Your task to perform on an android device: toggle priority inbox in the gmail app Image 0: 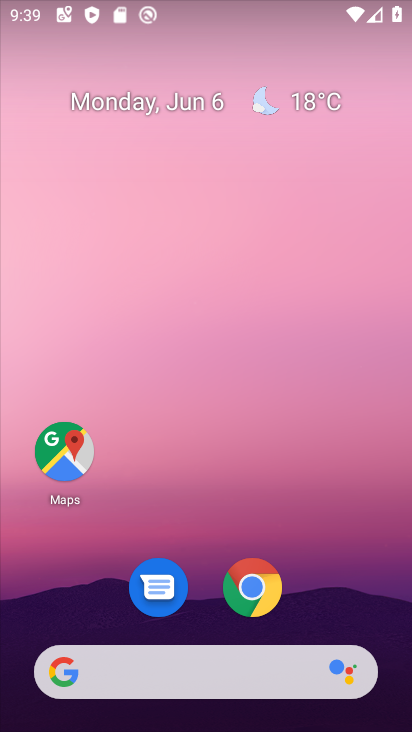
Step 0: drag from (352, 570) to (294, 146)
Your task to perform on an android device: toggle priority inbox in the gmail app Image 1: 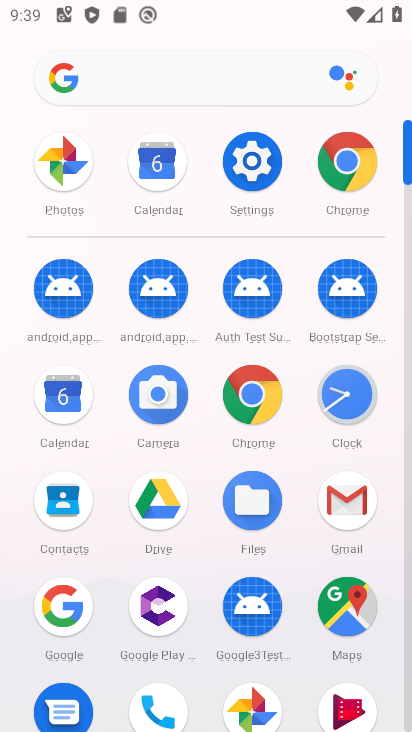
Step 1: click (336, 513)
Your task to perform on an android device: toggle priority inbox in the gmail app Image 2: 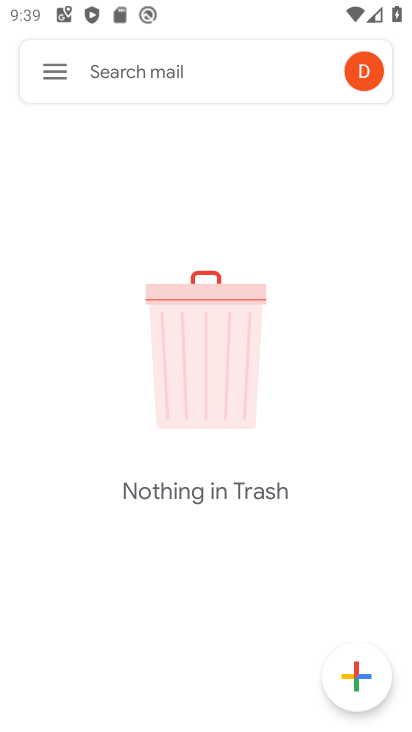
Step 2: click (41, 66)
Your task to perform on an android device: toggle priority inbox in the gmail app Image 3: 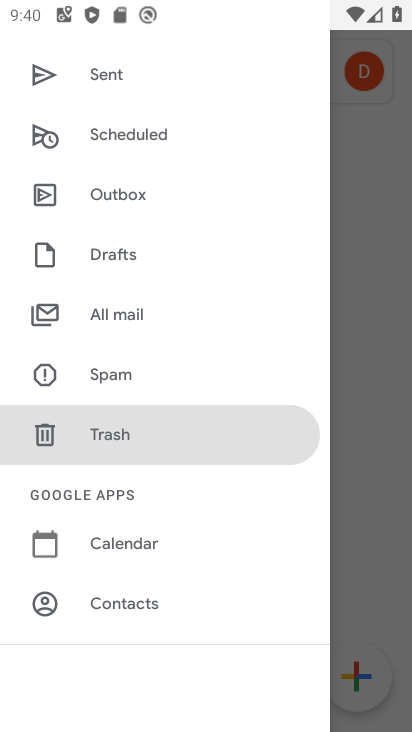
Step 3: drag from (189, 622) to (226, 143)
Your task to perform on an android device: toggle priority inbox in the gmail app Image 4: 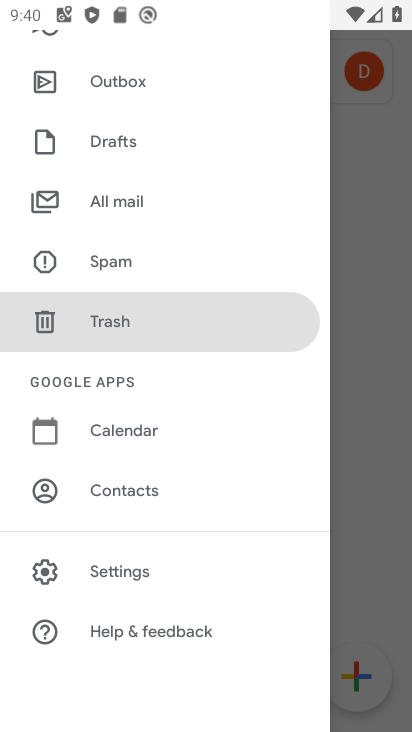
Step 4: click (116, 581)
Your task to perform on an android device: toggle priority inbox in the gmail app Image 5: 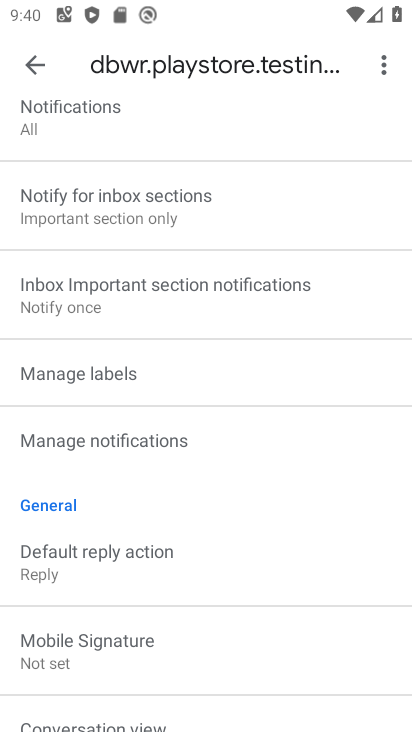
Step 5: drag from (212, 166) to (188, 492)
Your task to perform on an android device: toggle priority inbox in the gmail app Image 6: 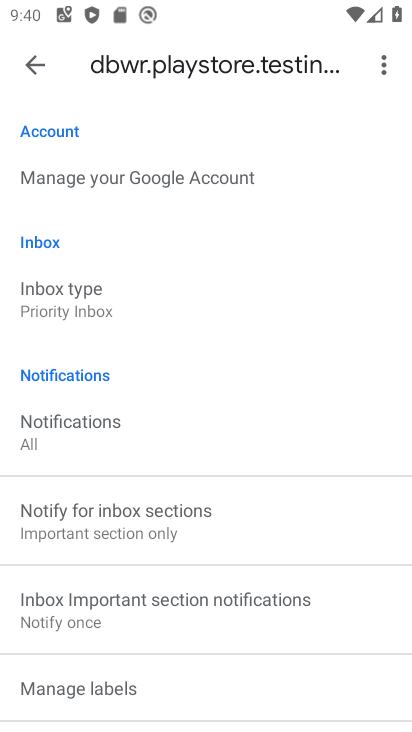
Step 6: click (62, 292)
Your task to perform on an android device: toggle priority inbox in the gmail app Image 7: 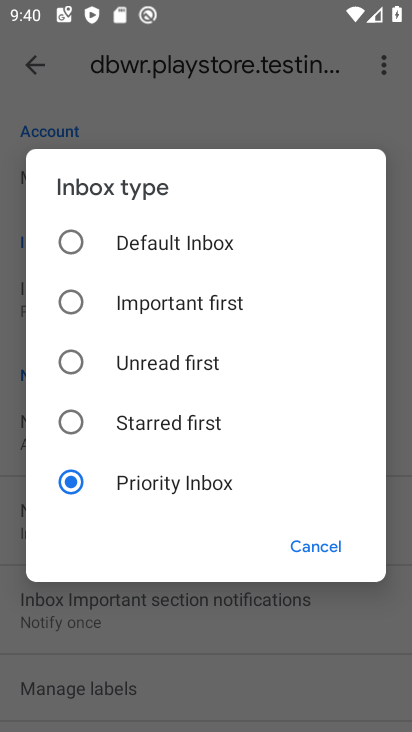
Step 7: click (179, 239)
Your task to perform on an android device: toggle priority inbox in the gmail app Image 8: 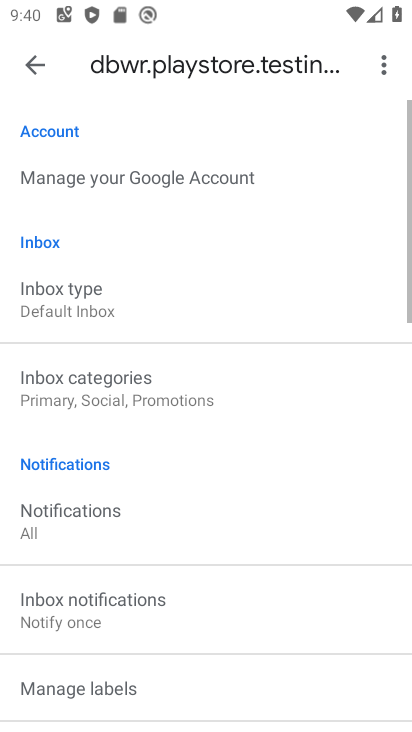
Step 8: task complete